Your task to perform on an android device: Open battery settings Image 0: 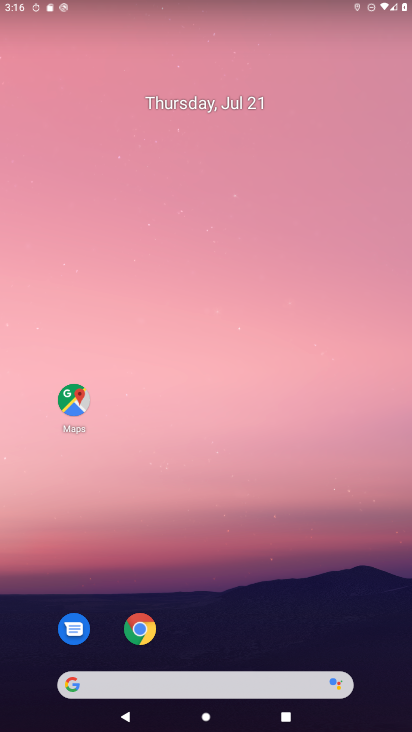
Step 0: drag from (236, 660) to (229, 47)
Your task to perform on an android device: Open battery settings Image 1: 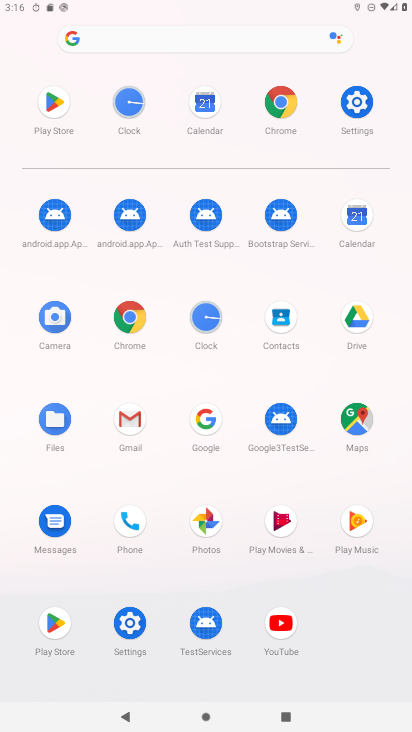
Step 1: click (126, 628)
Your task to perform on an android device: Open battery settings Image 2: 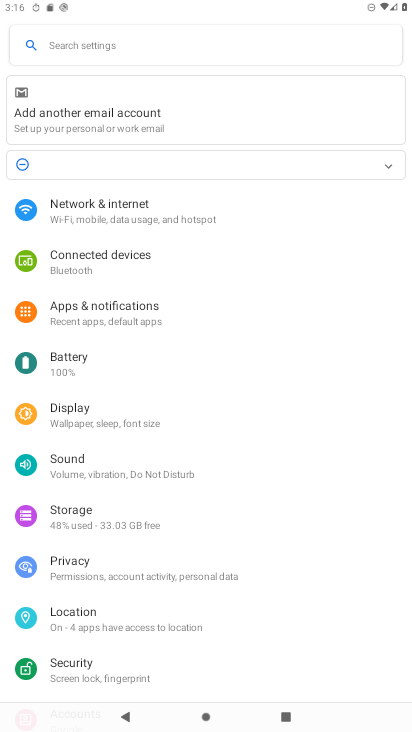
Step 2: click (141, 635)
Your task to perform on an android device: Open battery settings Image 3: 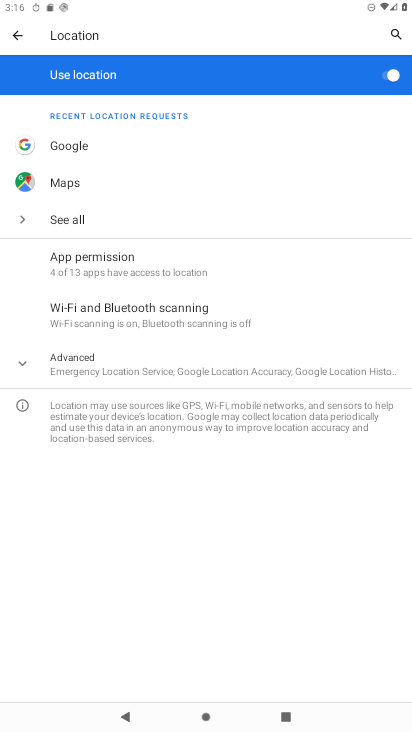
Step 3: click (92, 370)
Your task to perform on an android device: Open battery settings Image 4: 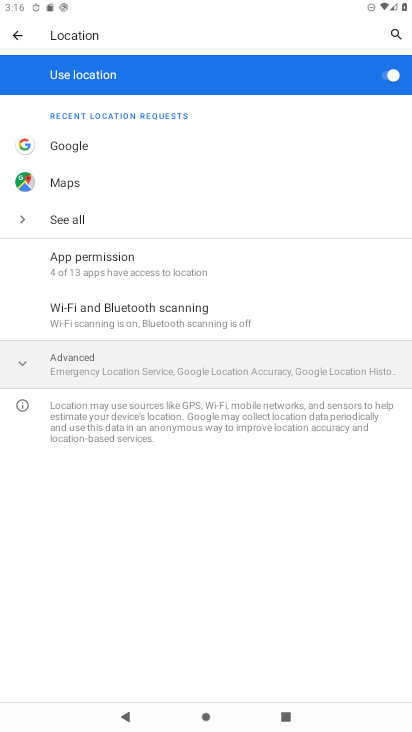
Step 4: click (13, 35)
Your task to perform on an android device: Open battery settings Image 5: 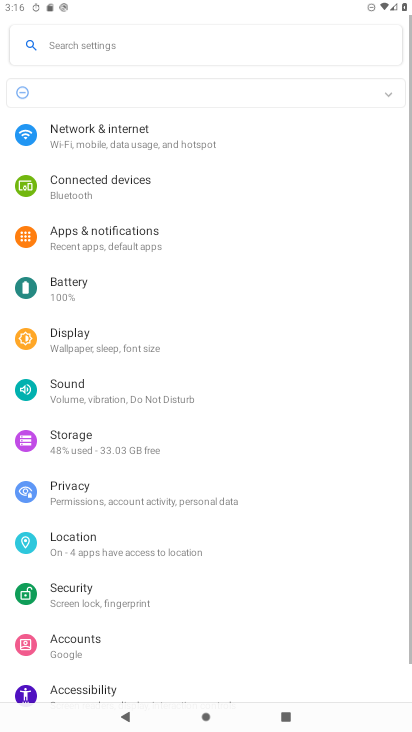
Step 5: click (19, 34)
Your task to perform on an android device: Open battery settings Image 6: 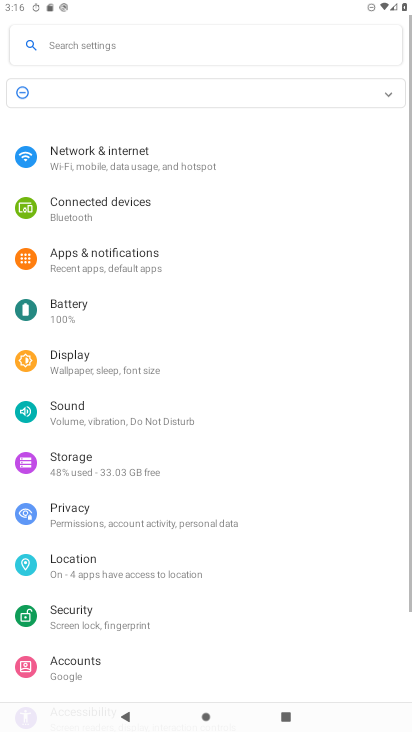
Step 6: click (13, 35)
Your task to perform on an android device: Open battery settings Image 7: 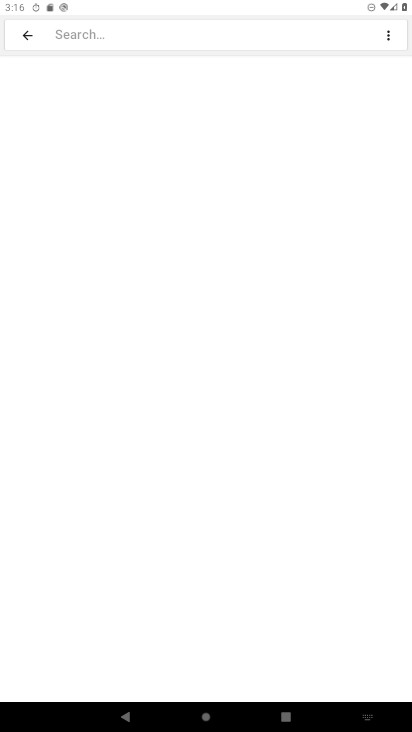
Step 7: click (34, 30)
Your task to perform on an android device: Open battery settings Image 8: 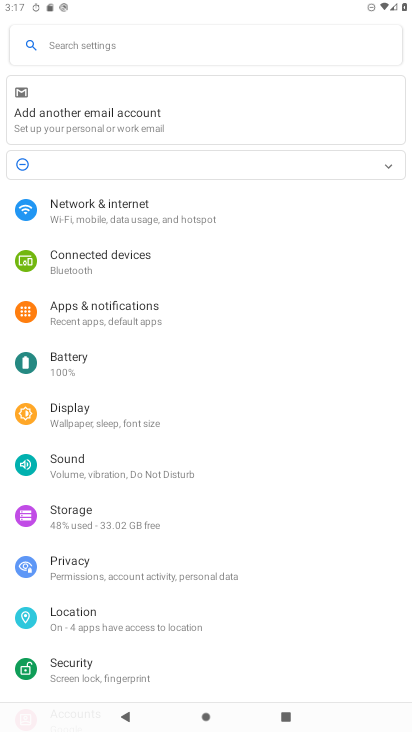
Step 8: click (54, 374)
Your task to perform on an android device: Open battery settings Image 9: 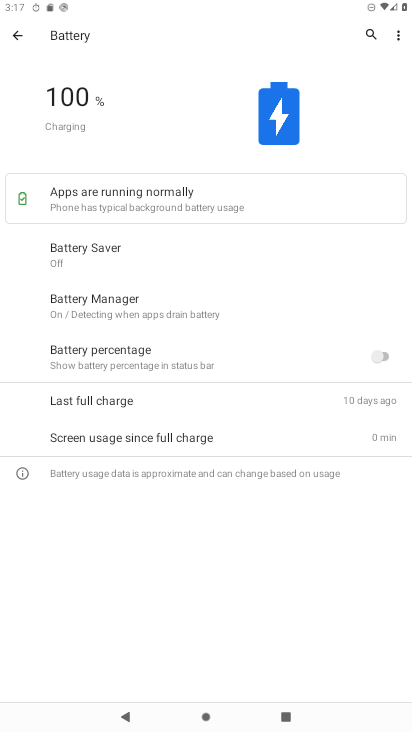
Step 9: task complete